Your task to perform on an android device: Is it going to rain this weekend? Image 0: 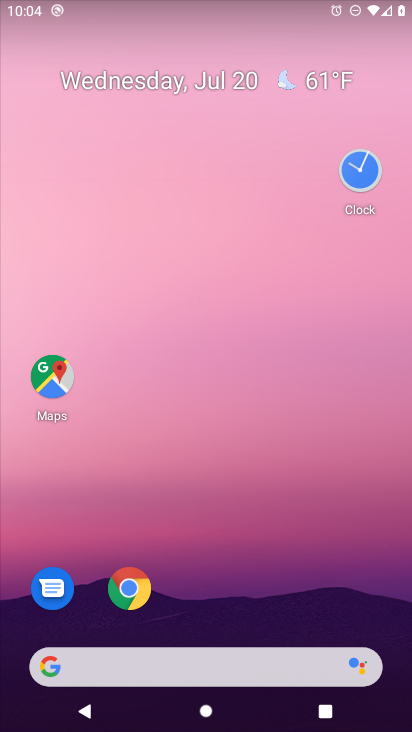
Step 0: click (159, 684)
Your task to perform on an android device: Is it going to rain this weekend? Image 1: 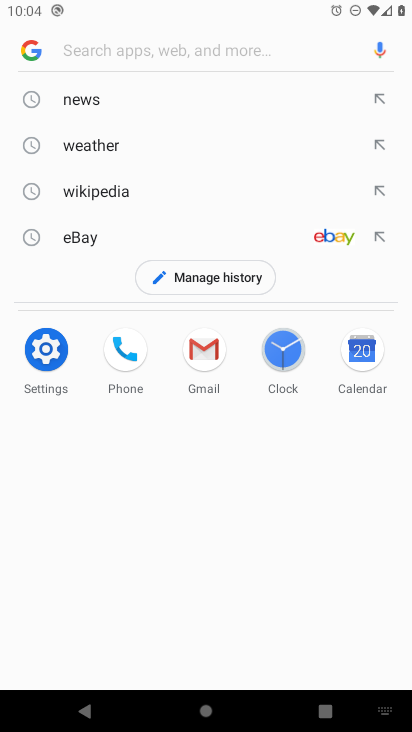
Step 1: type "Is it going to rain this weekend?"
Your task to perform on an android device: Is it going to rain this weekend? Image 2: 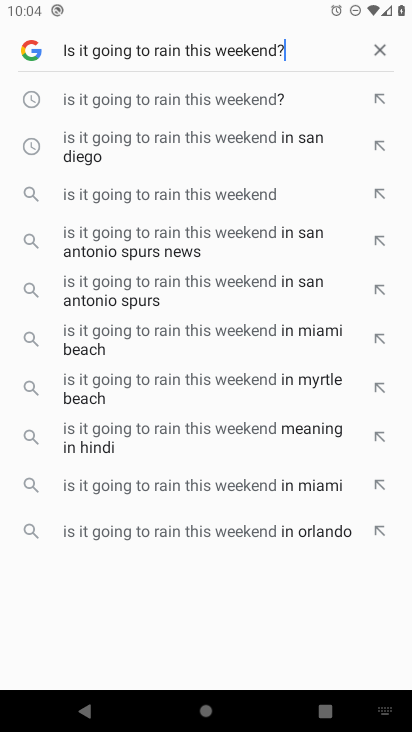
Step 2: type ""
Your task to perform on an android device: Is it going to rain this weekend? Image 3: 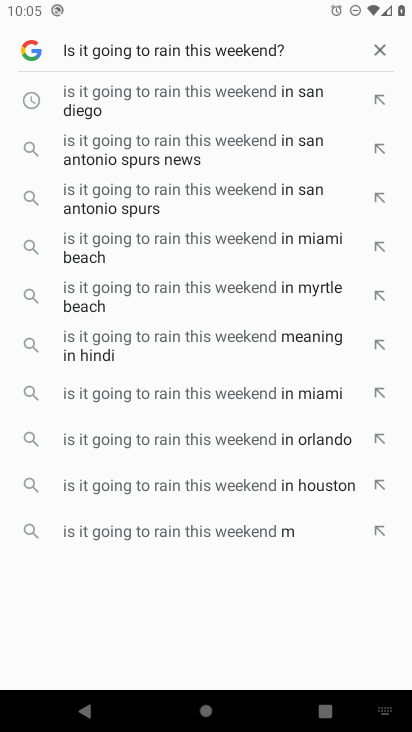
Step 3: task complete